Your task to perform on an android device: open chrome privacy settings Image 0: 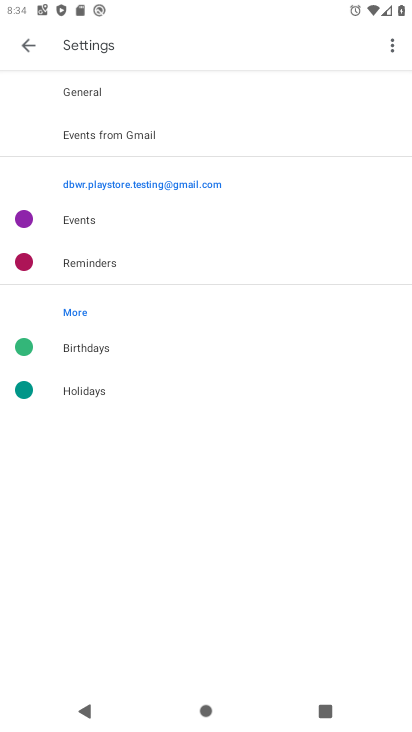
Step 0: press home button
Your task to perform on an android device: open chrome privacy settings Image 1: 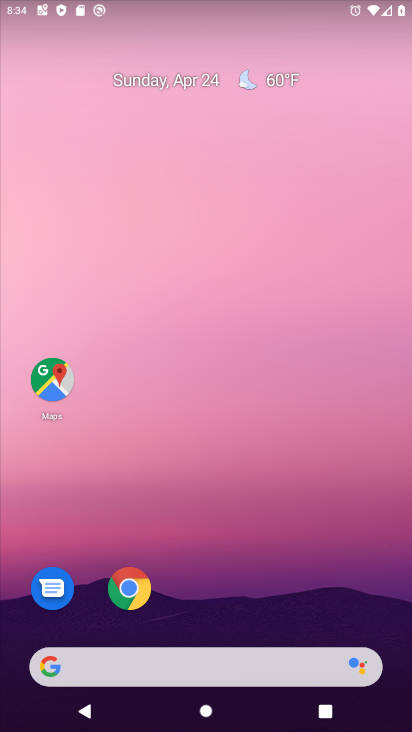
Step 1: click (127, 591)
Your task to perform on an android device: open chrome privacy settings Image 2: 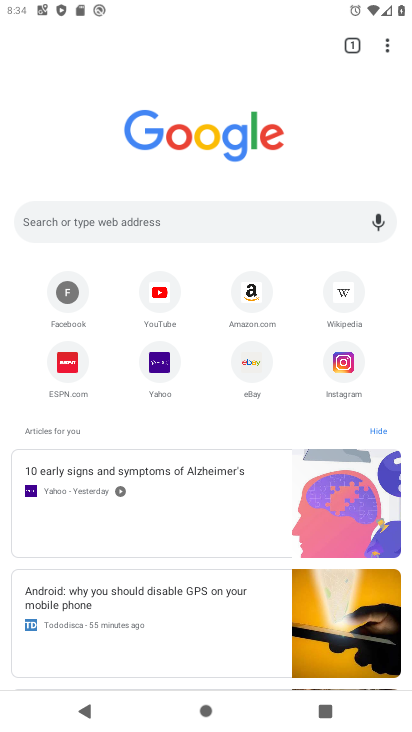
Step 2: click (388, 44)
Your task to perform on an android device: open chrome privacy settings Image 3: 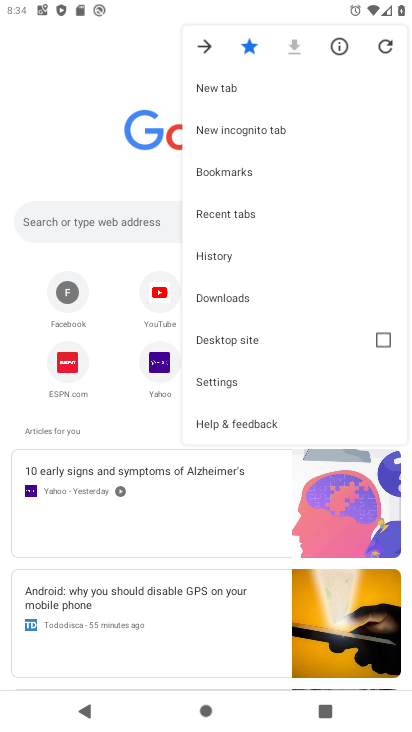
Step 3: click (222, 382)
Your task to perform on an android device: open chrome privacy settings Image 4: 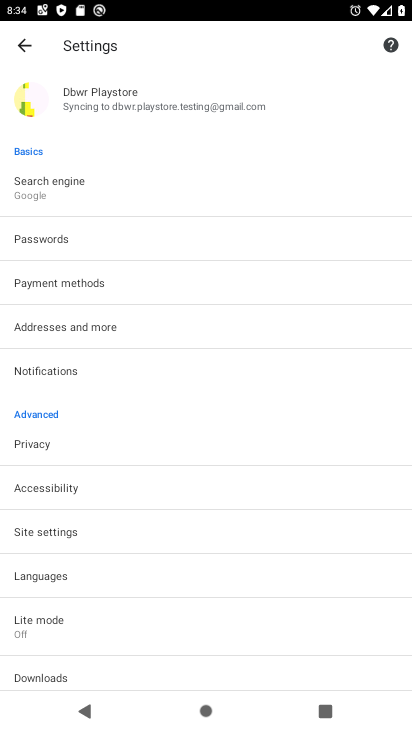
Step 4: click (36, 447)
Your task to perform on an android device: open chrome privacy settings Image 5: 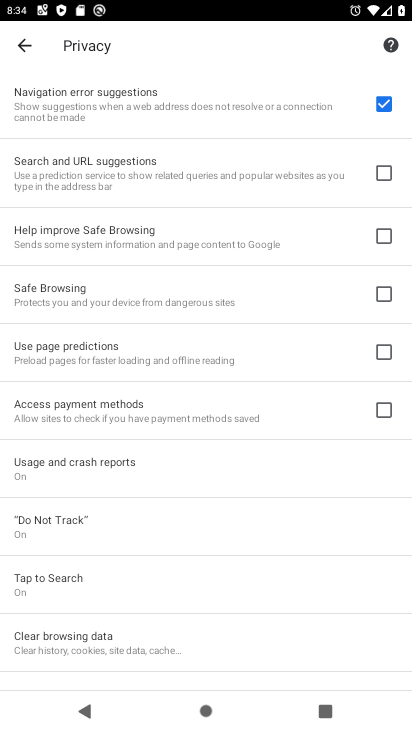
Step 5: task complete